Your task to perform on an android device: Go to Yahoo.com Image 0: 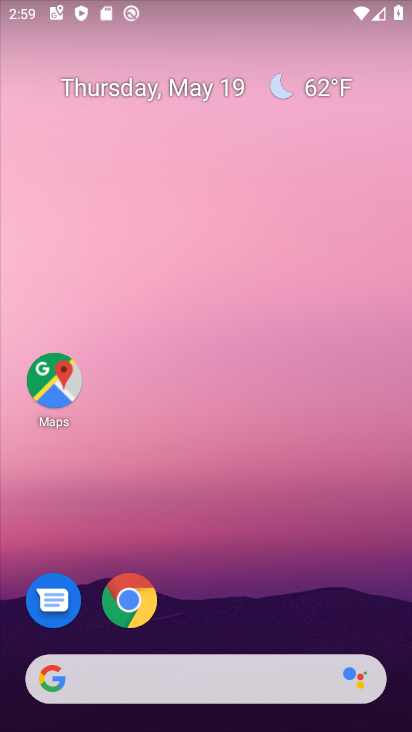
Step 0: press home button
Your task to perform on an android device: Go to Yahoo.com Image 1: 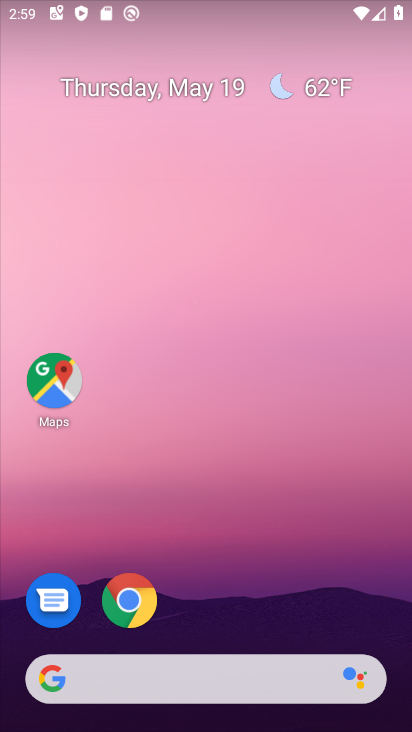
Step 1: click (124, 588)
Your task to perform on an android device: Go to Yahoo.com Image 2: 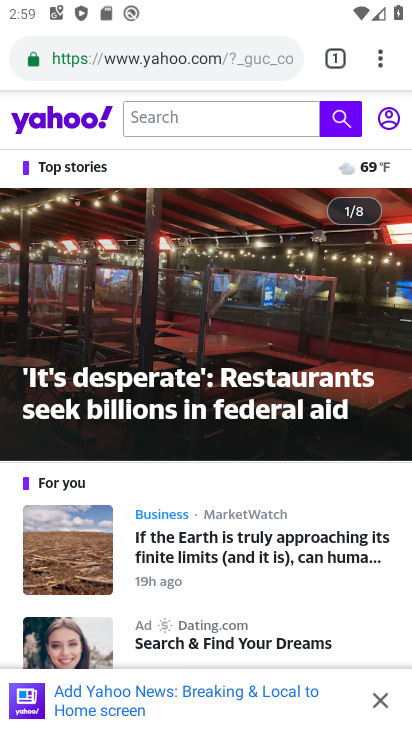
Step 2: task complete